Your task to perform on an android device: Open accessibility settings Image 0: 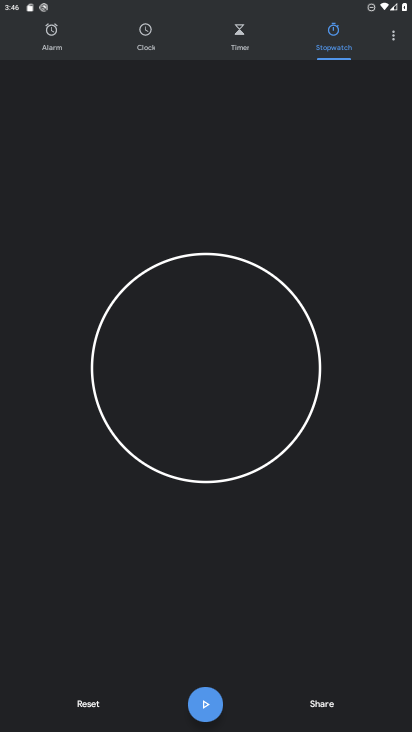
Step 0: press home button
Your task to perform on an android device: Open accessibility settings Image 1: 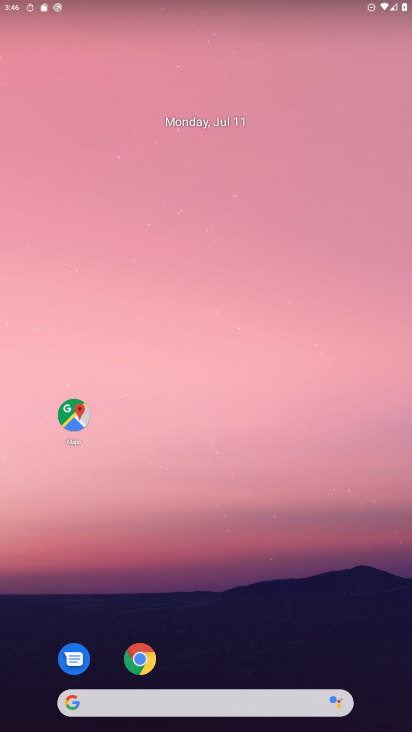
Step 1: drag from (302, 632) to (206, 13)
Your task to perform on an android device: Open accessibility settings Image 2: 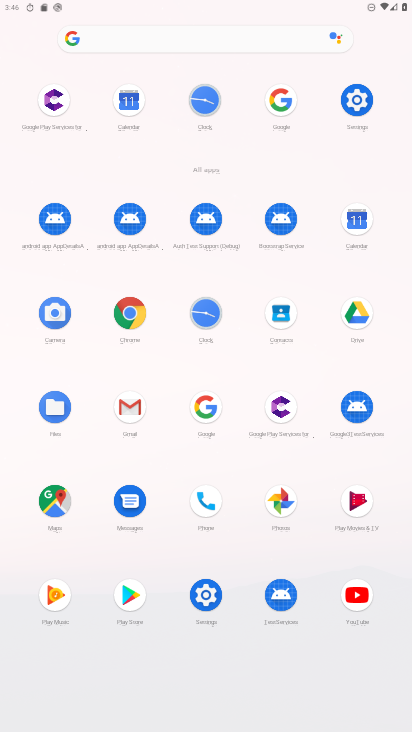
Step 2: click (372, 100)
Your task to perform on an android device: Open accessibility settings Image 3: 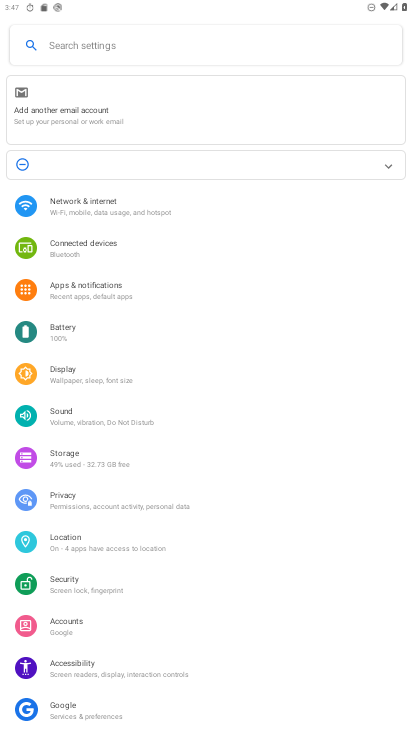
Step 3: click (121, 674)
Your task to perform on an android device: Open accessibility settings Image 4: 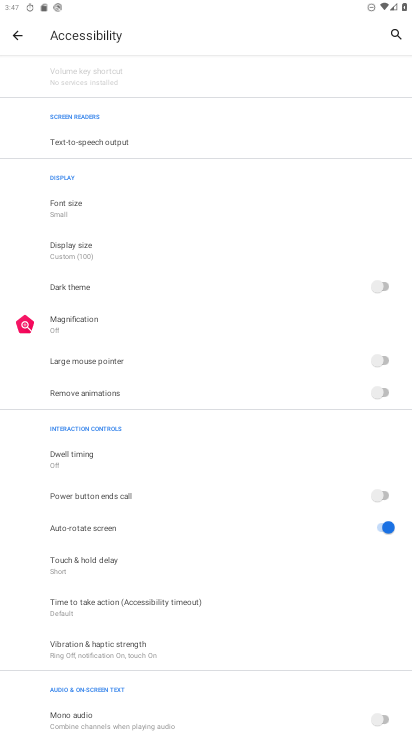
Step 4: task complete